Your task to perform on an android device: open wifi settings Image 0: 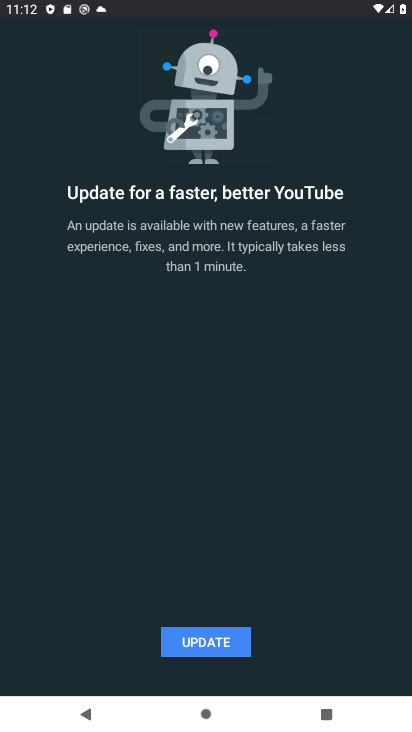
Step 0: press home button
Your task to perform on an android device: open wifi settings Image 1: 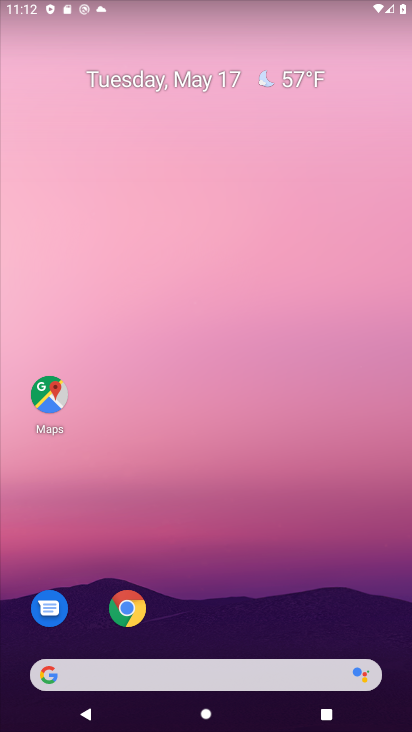
Step 1: drag from (243, 595) to (284, 217)
Your task to perform on an android device: open wifi settings Image 2: 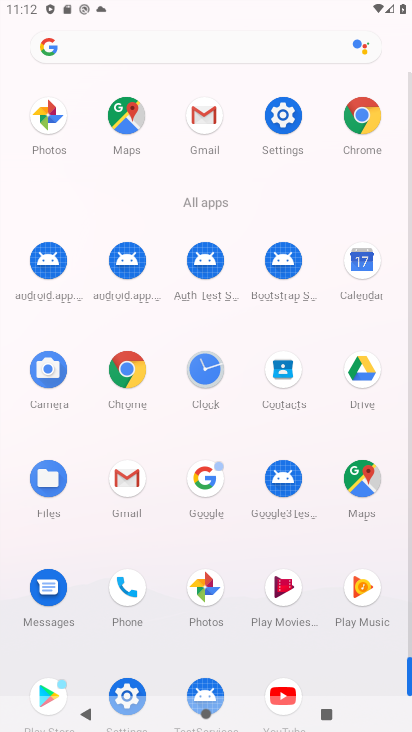
Step 2: click (297, 124)
Your task to perform on an android device: open wifi settings Image 3: 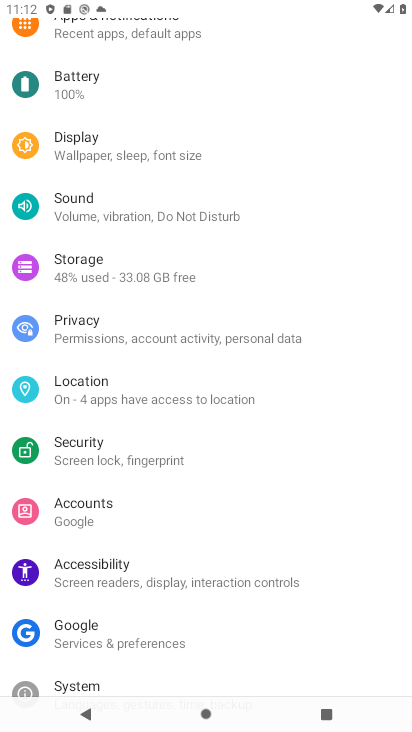
Step 3: drag from (143, 117) to (97, 432)
Your task to perform on an android device: open wifi settings Image 4: 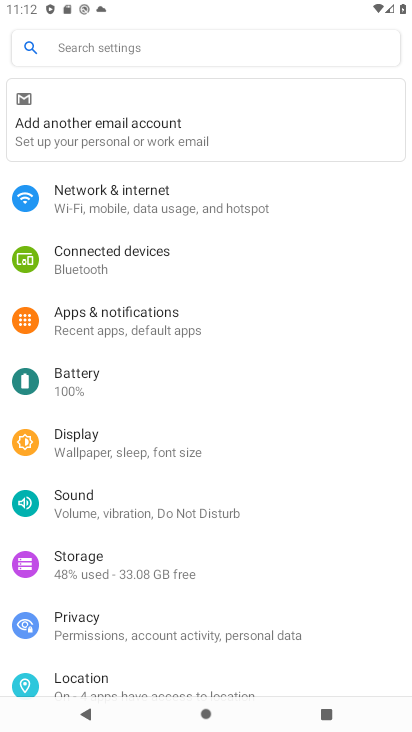
Step 4: click (129, 201)
Your task to perform on an android device: open wifi settings Image 5: 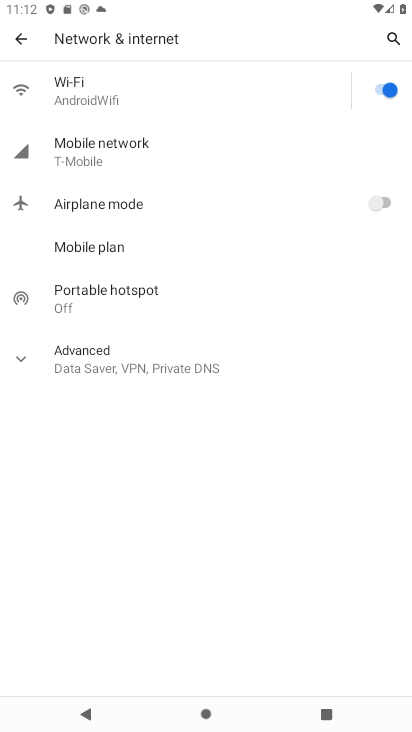
Step 5: click (119, 95)
Your task to perform on an android device: open wifi settings Image 6: 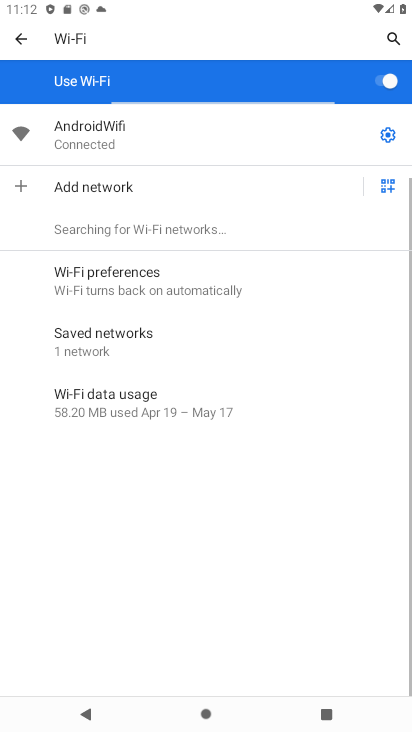
Step 6: task complete